Your task to perform on an android device: Check the news Image 0: 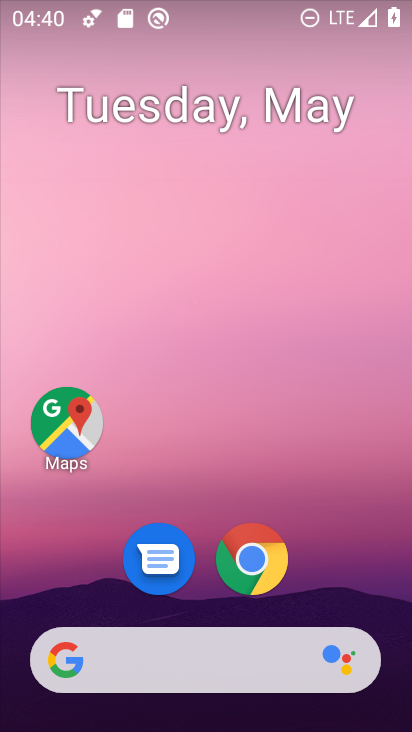
Step 0: drag from (4, 249) to (409, 275)
Your task to perform on an android device: Check the news Image 1: 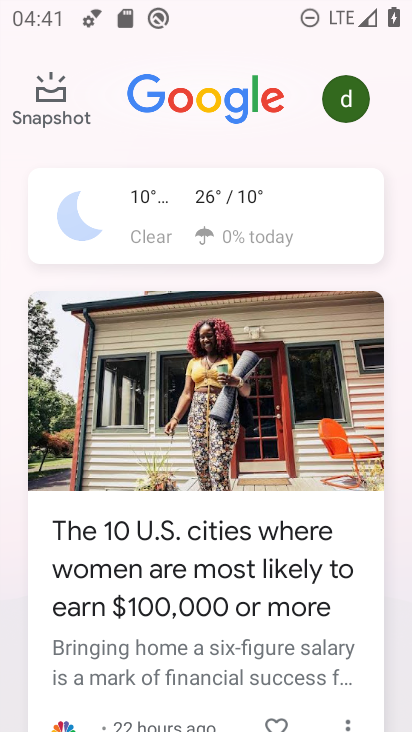
Step 1: task complete